Your task to perform on an android device: change the clock display to digital Image 0: 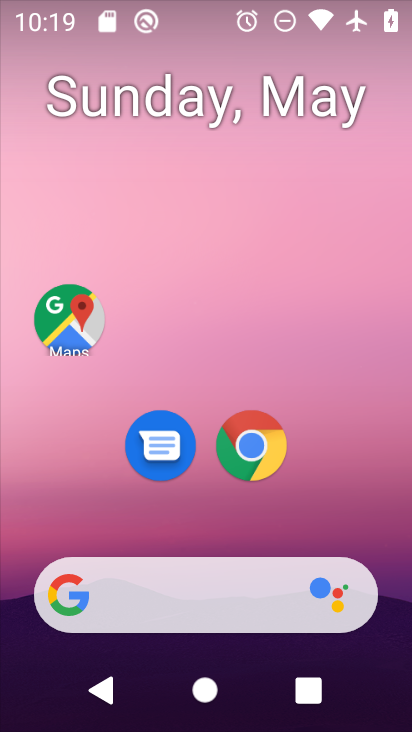
Step 0: drag from (248, 569) to (301, 151)
Your task to perform on an android device: change the clock display to digital Image 1: 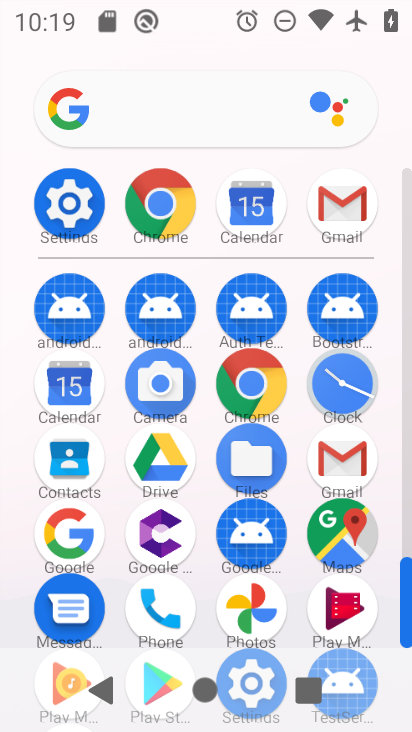
Step 1: click (358, 397)
Your task to perform on an android device: change the clock display to digital Image 2: 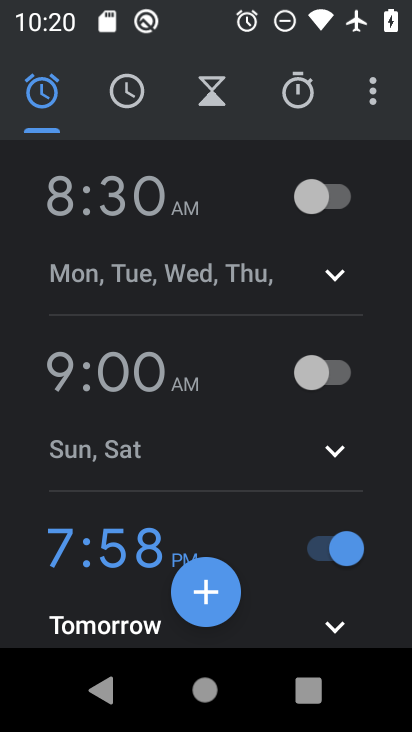
Step 2: click (379, 95)
Your task to perform on an android device: change the clock display to digital Image 3: 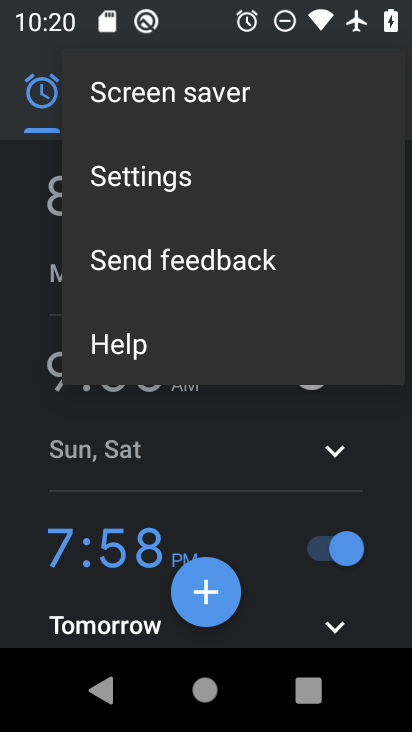
Step 3: click (187, 168)
Your task to perform on an android device: change the clock display to digital Image 4: 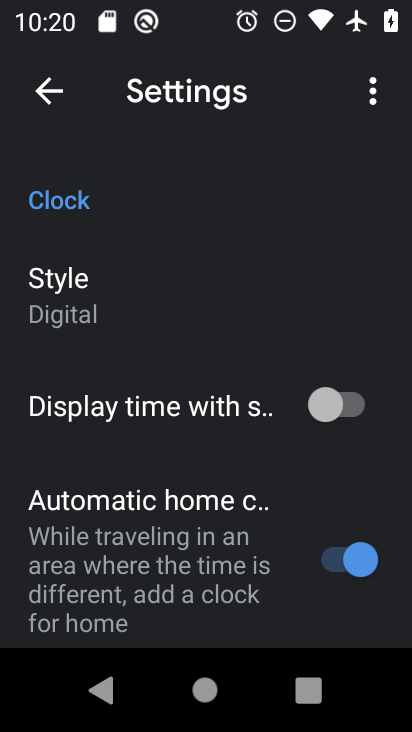
Step 4: click (151, 319)
Your task to perform on an android device: change the clock display to digital Image 5: 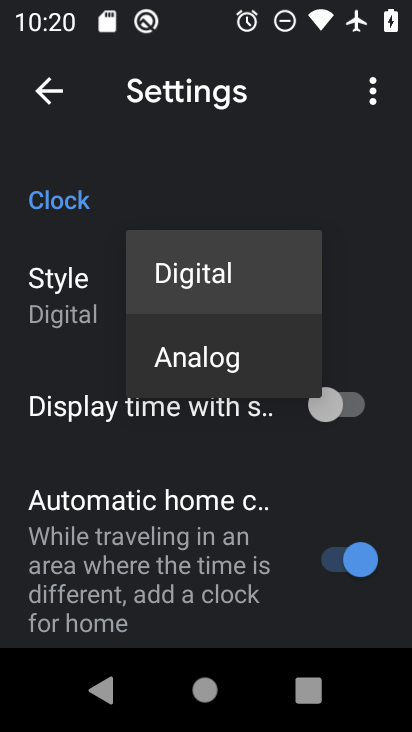
Step 5: task complete